Your task to perform on an android device: move an email to a new category in the gmail app Image 0: 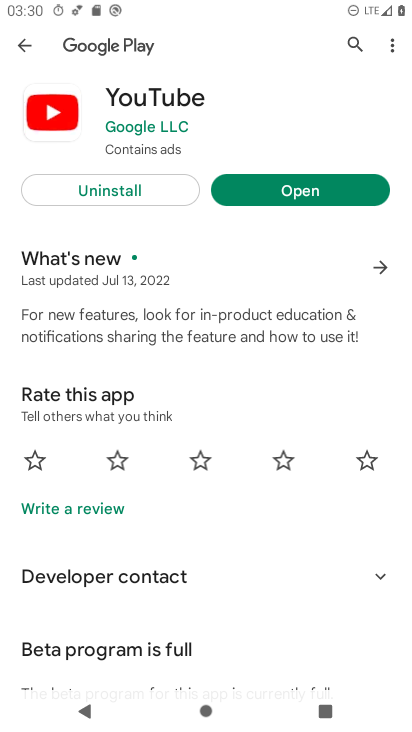
Step 0: press home button
Your task to perform on an android device: move an email to a new category in the gmail app Image 1: 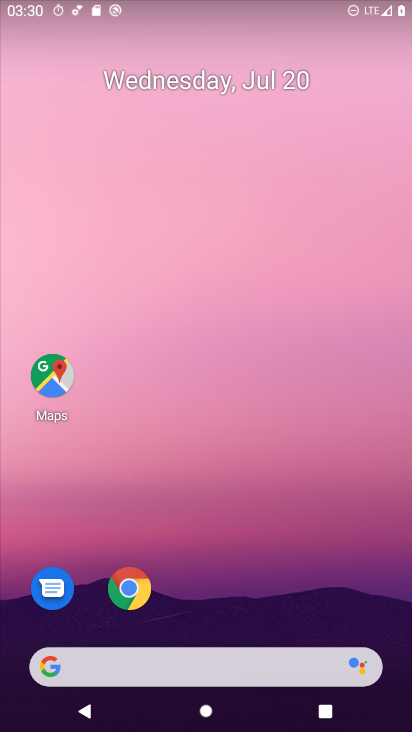
Step 1: drag from (184, 625) to (146, 79)
Your task to perform on an android device: move an email to a new category in the gmail app Image 2: 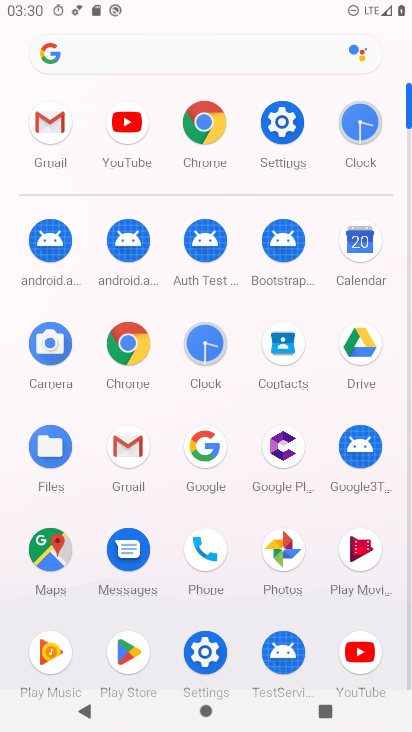
Step 2: click (128, 447)
Your task to perform on an android device: move an email to a new category in the gmail app Image 3: 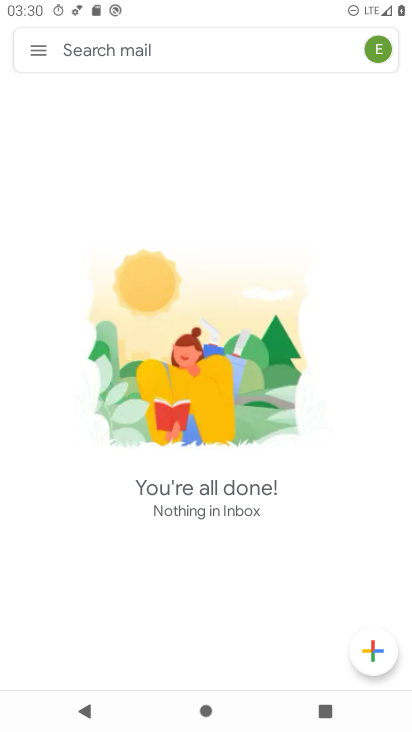
Step 3: task complete